Your task to perform on an android device: turn smart compose on in the gmail app Image 0: 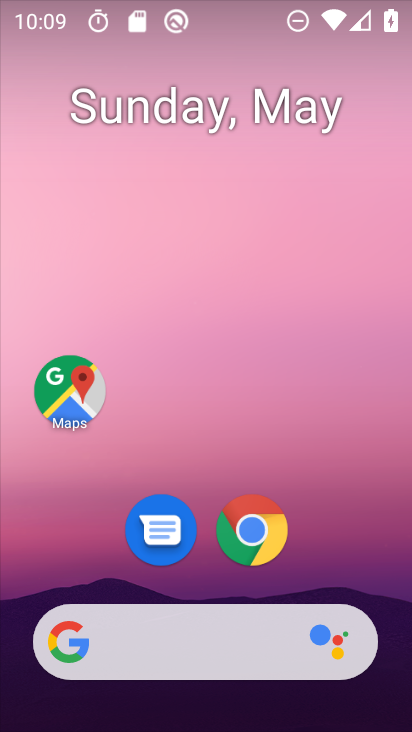
Step 0: drag from (248, 659) to (209, 132)
Your task to perform on an android device: turn smart compose on in the gmail app Image 1: 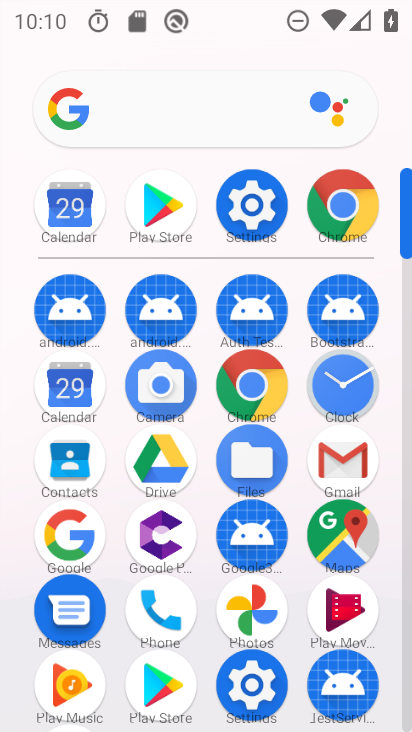
Step 1: click (318, 455)
Your task to perform on an android device: turn smart compose on in the gmail app Image 2: 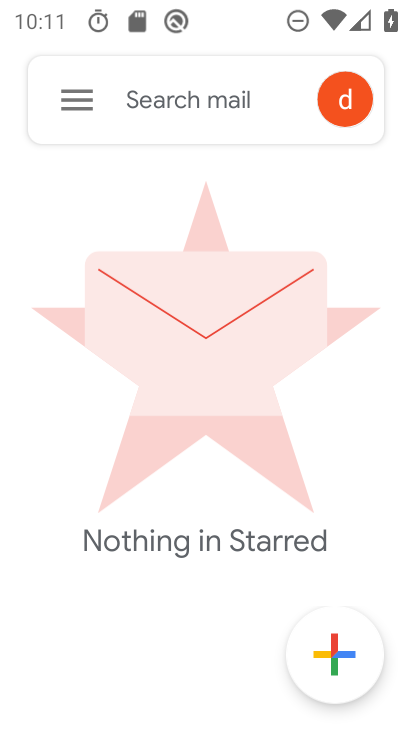
Step 2: click (83, 84)
Your task to perform on an android device: turn smart compose on in the gmail app Image 3: 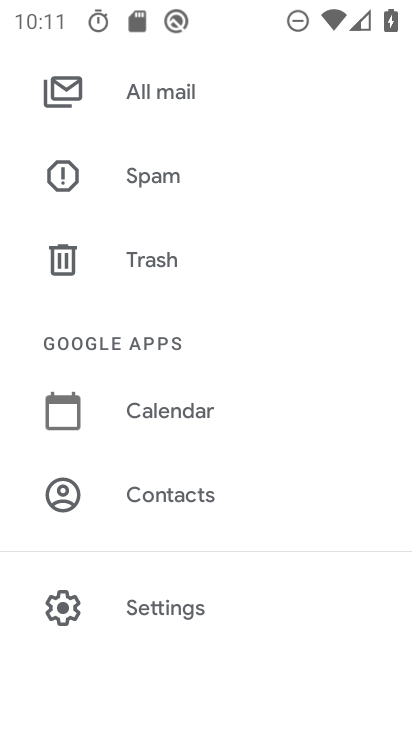
Step 3: click (131, 629)
Your task to perform on an android device: turn smart compose on in the gmail app Image 4: 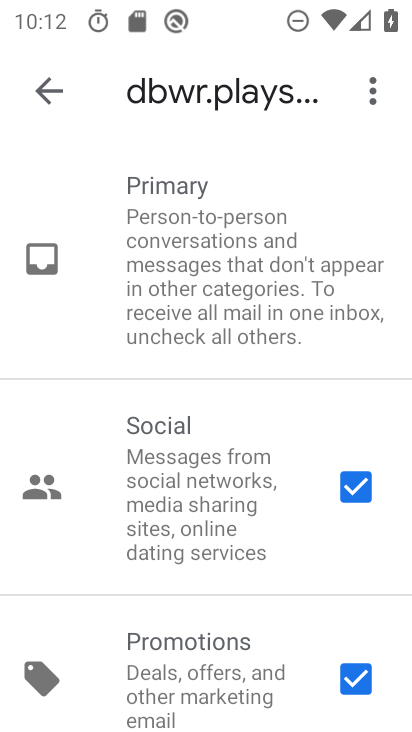
Step 4: click (56, 99)
Your task to perform on an android device: turn smart compose on in the gmail app Image 5: 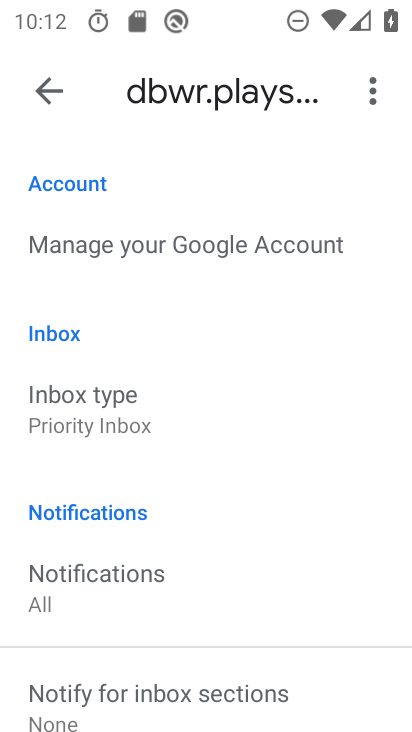
Step 5: drag from (253, 534) to (282, 133)
Your task to perform on an android device: turn smart compose on in the gmail app Image 6: 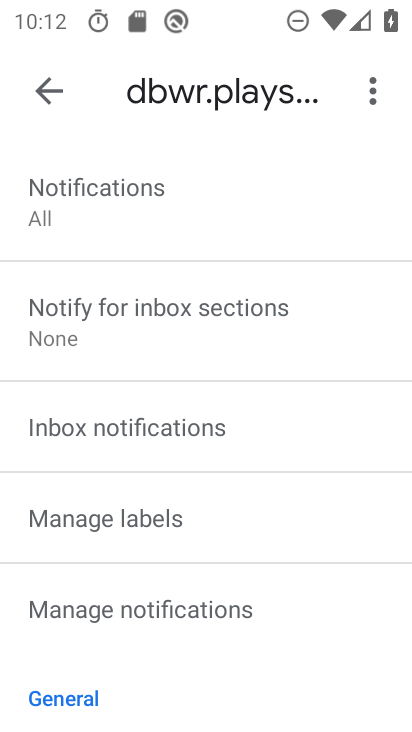
Step 6: drag from (219, 588) to (208, 335)
Your task to perform on an android device: turn smart compose on in the gmail app Image 7: 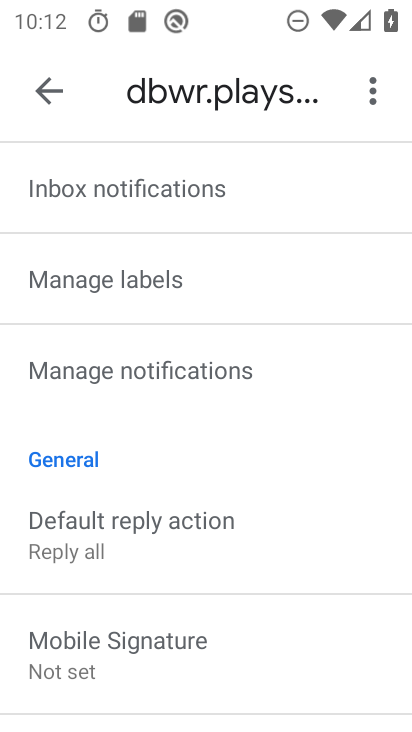
Step 7: drag from (218, 574) to (196, 233)
Your task to perform on an android device: turn smart compose on in the gmail app Image 8: 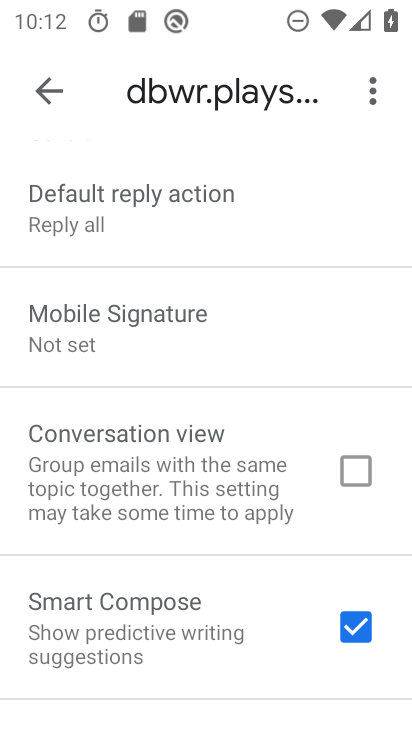
Step 8: click (353, 635)
Your task to perform on an android device: turn smart compose on in the gmail app Image 9: 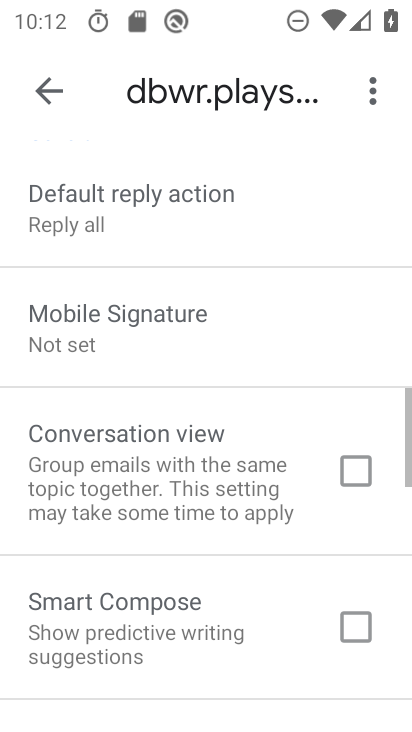
Step 9: click (353, 635)
Your task to perform on an android device: turn smart compose on in the gmail app Image 10: 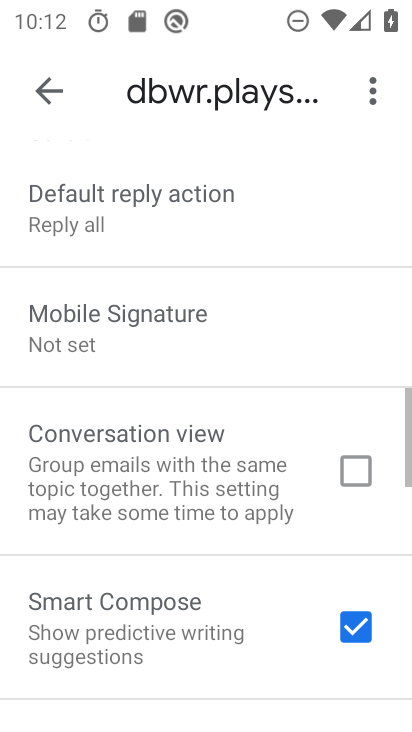
Step 10: task complete